Your task to perform on an android device: show emergency info Image 0: 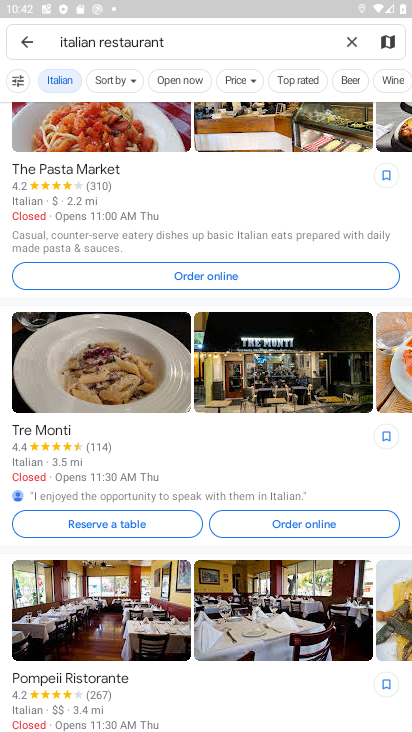
Step 0: press home button
Your task to perform on an android device: show emergency info Image 1: 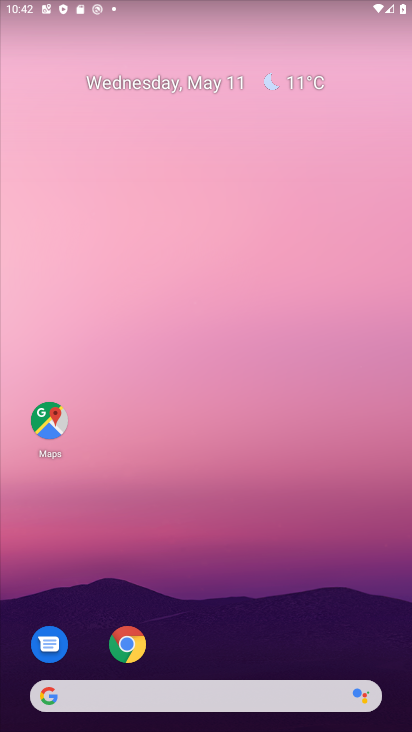
Step 1: drag from (221, 662) to (236, 189)
Your task to perform on an android device: show emergency info Image 2: 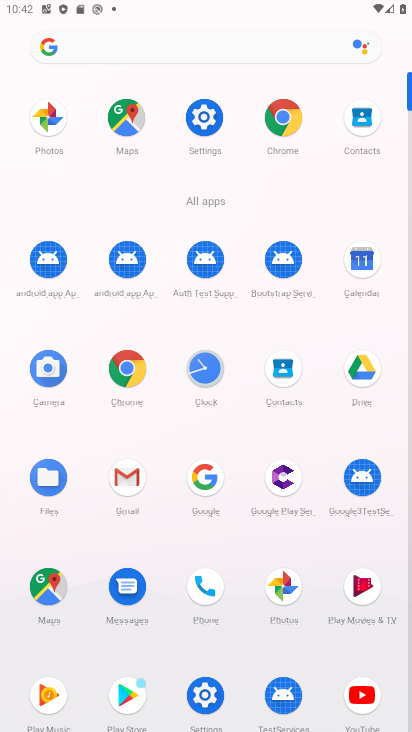
Step 2: click (200, 112)
Your task to perform on an android device: show emergency info Image 3: 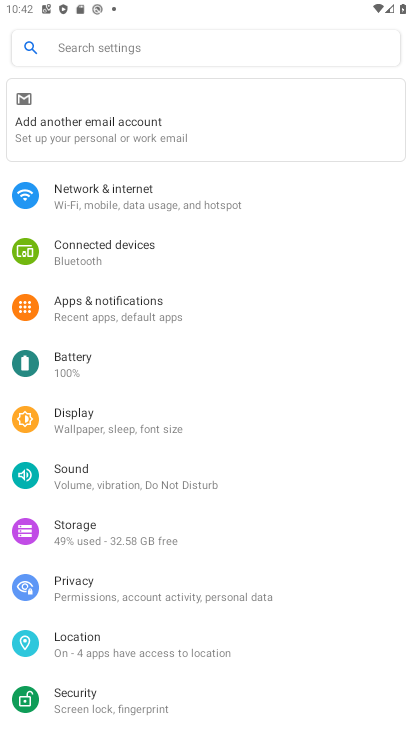
Step 3: drag from (164, 622) to (162, 64)
Your task to perform on an android device: show emergency info Image 4: 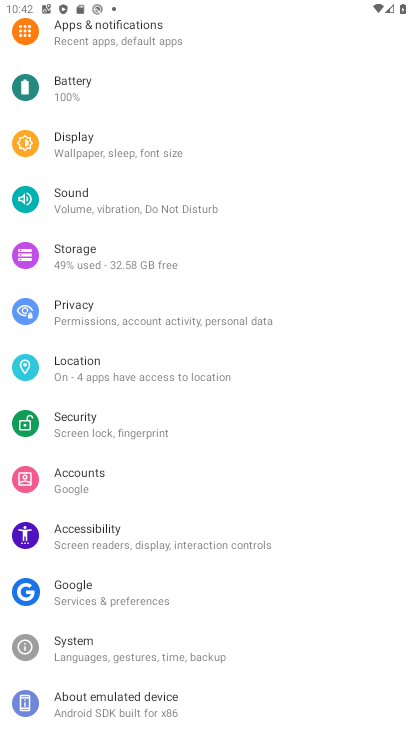
Step 4: click (142, 700)
Your task to perform on an android device: show emergency info Image 5: 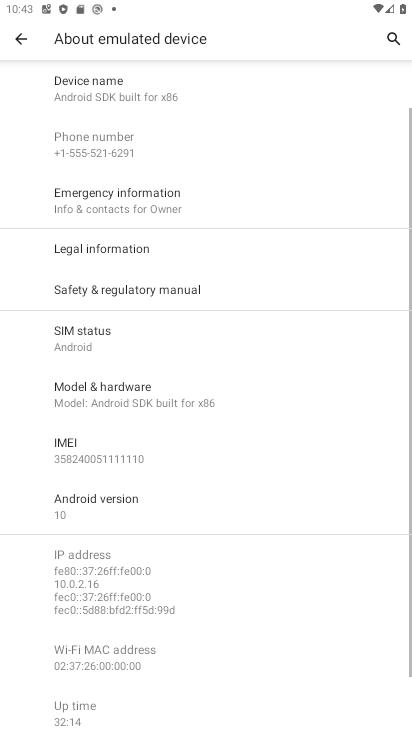
Step 5: click (127, 203)
Your task to perform on an android device: show emergency info Image 6: 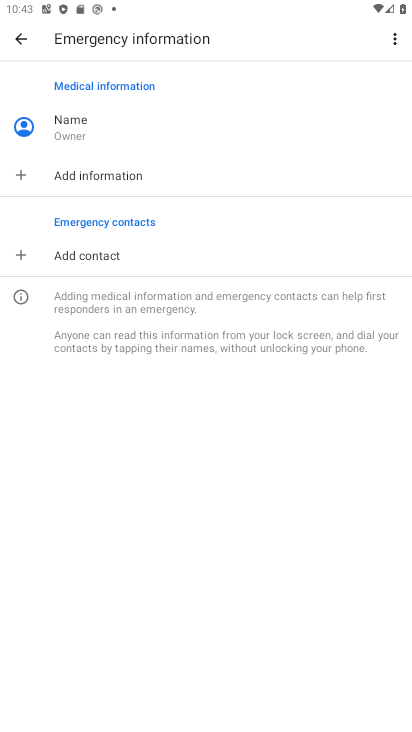
Step 6: task complete